Your task to perform on an android device: change timer sound Image 0: 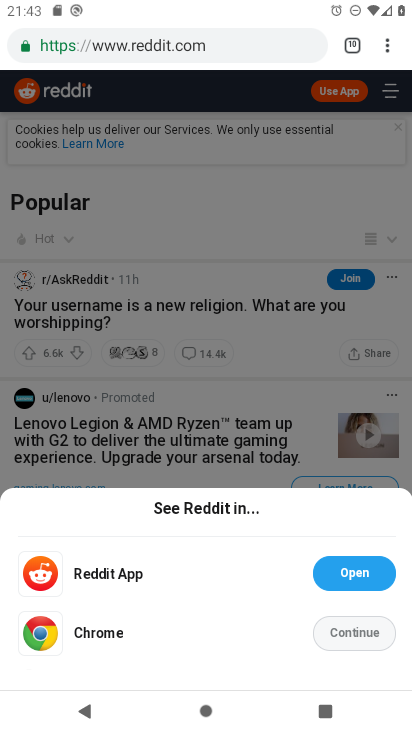
Step 0: press home button
Your task to perform on an android device: change timer sound Image 1: 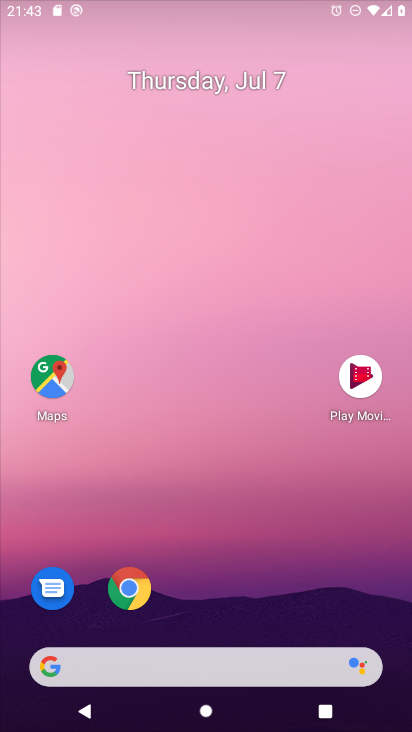
Step 1: drag from (268, 599) to (326, 185)
Your task to perform on an android device: change timer sound Image 2: 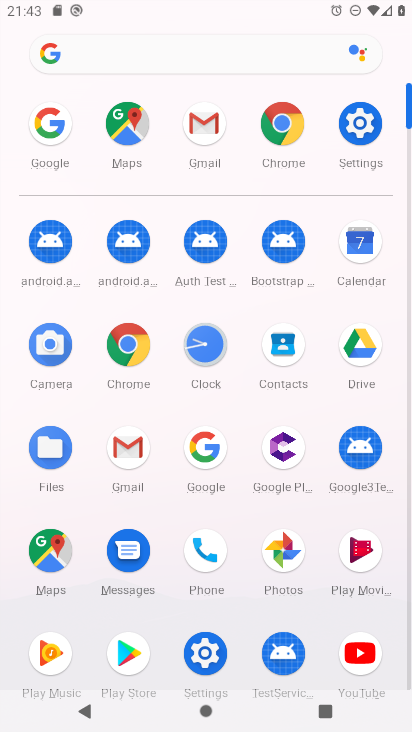
Step 2: click (198, 340)
Your task to perform on an android device: change timer sound Image 3: 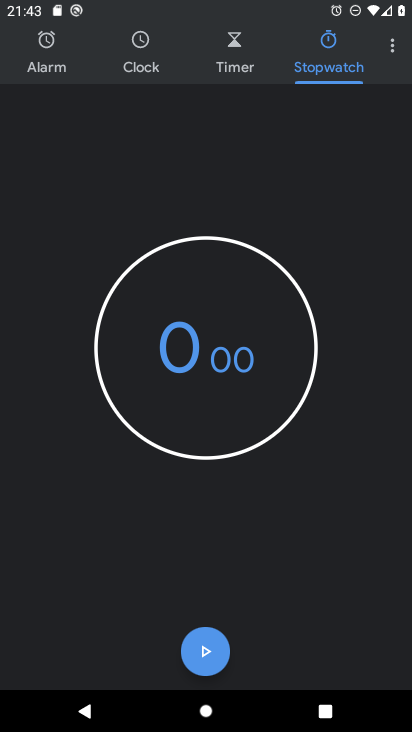
Step 3: click (394, 35)
Your task to perform on an android device: change timer sound Image 4: 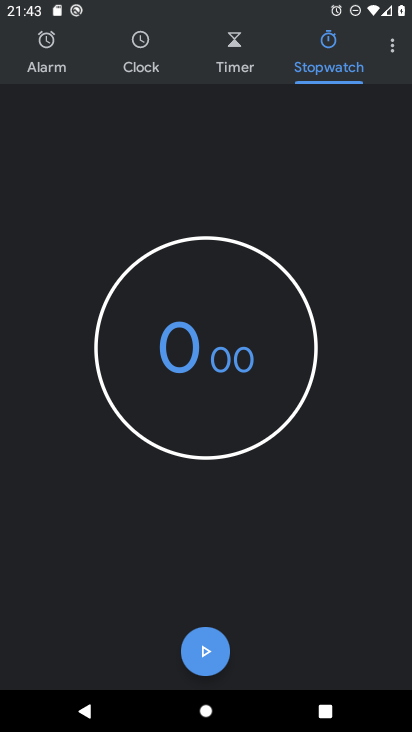
Step 4: click (398, 43)
Your task to perform on an android device: change timer sound Image 5: 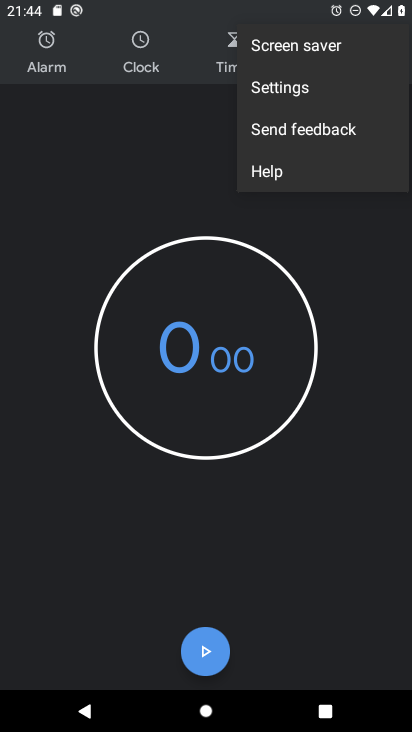
Step 5: click (318, 83)
Your task to perform on an android device: change timer sound Image 6: 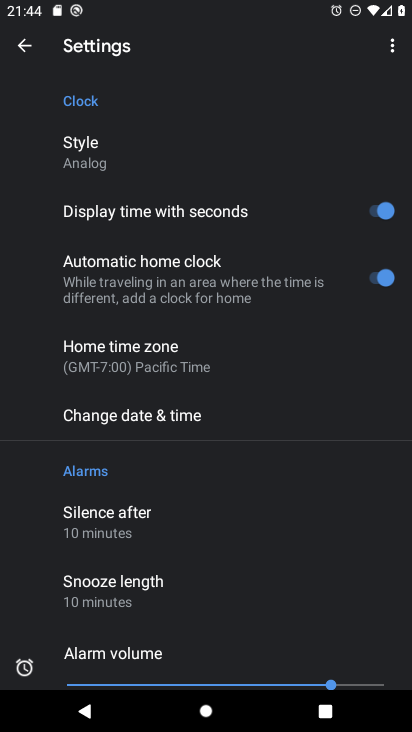
Step 6: drag from (200, 553) to (222, 270)
Your task to perform on an android device: change timer sound Image 7: 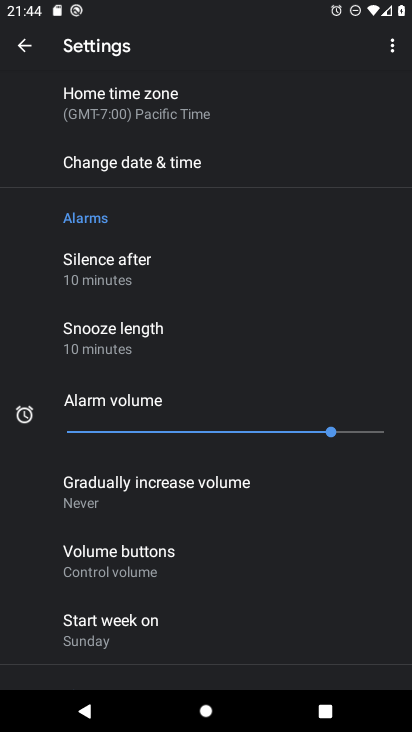
Step 7: drag from (197, 594) to (214, 234)
Your task to perform on an android device: change timer sound Image 8: 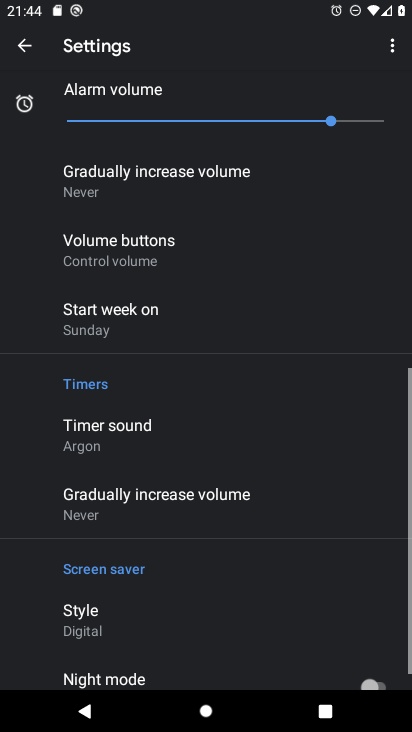
Step 8: drag from (226, 481) to (216, 217)
Your task to perform on an android device: change timer sound Image 9: 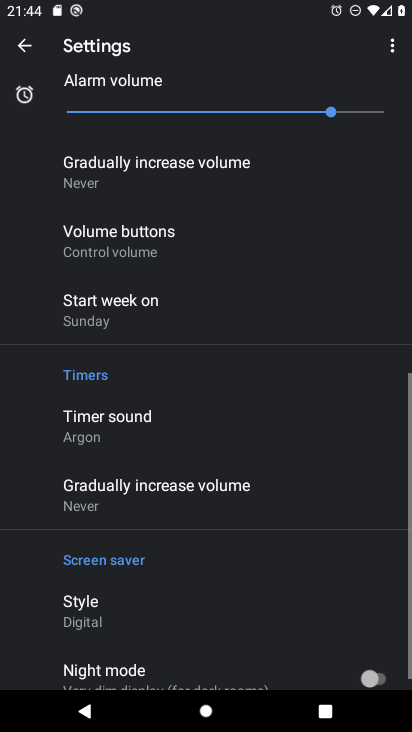
Step 9: click (127, 422)
Your task to perform on an android device: change timer sound Image 10: 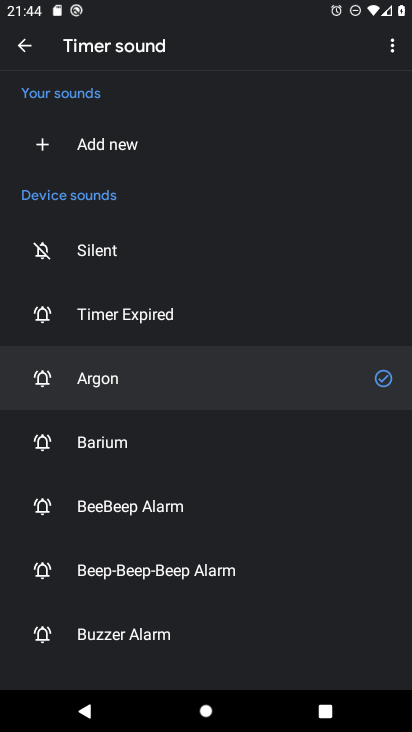
Step 10: click (152, 576)
Your task to perform on an android device: change timer sound Image 11: 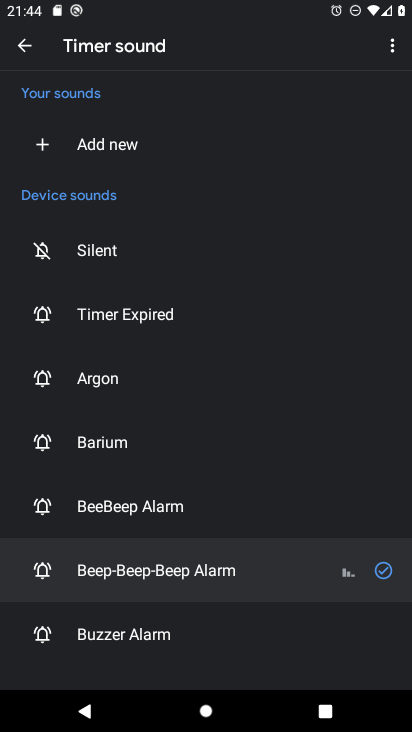
Step 11: task complete